Your task to perform on an android device: Go to Maps Image 0: 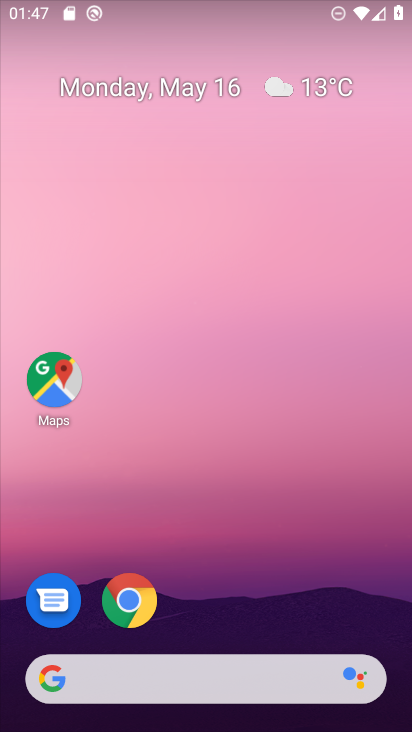
Step 0: click (57, 376)
Your task to perform on an android device: Go to Maps Image 1: 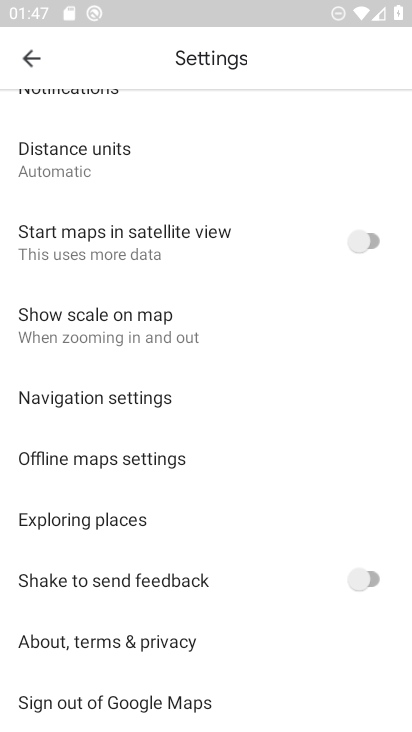
Step 1: click (32, 58)
Your task to perform on an android device: Go to Maps Image 2: 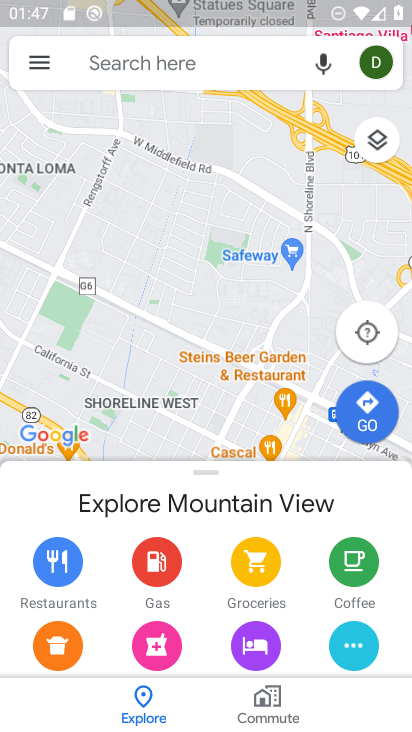
Step 2: task complete